Your task to perform on an android device: turn off priority inbox in the gmail app Image 0: 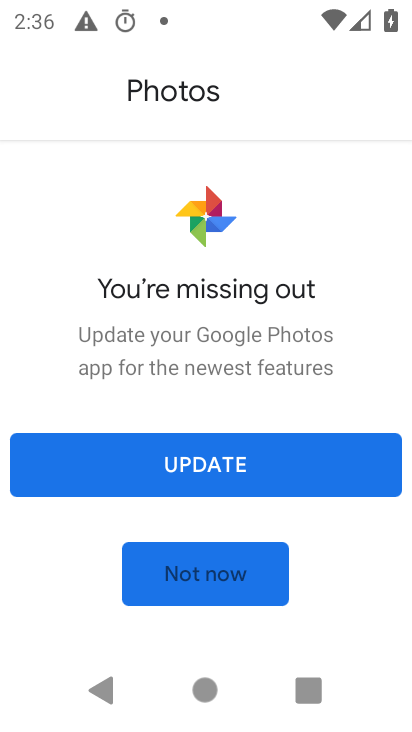
Step 0: click (228, 552)
Your task to perform on an android device: turn off priority inbox in the gmail app Image 1: 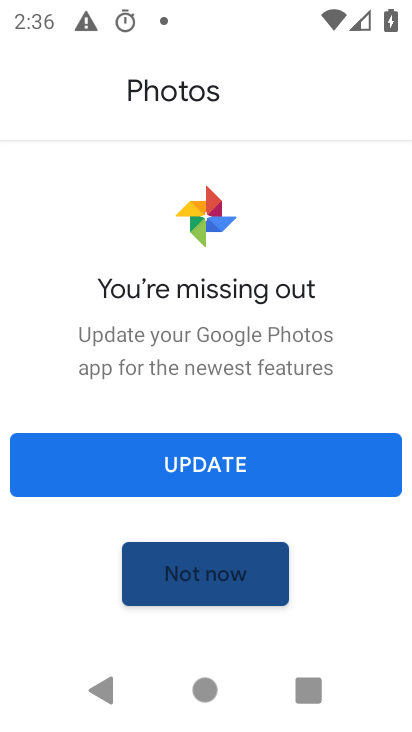
Step 1: click (221, 570)
Your task to perform on an android device: turn off priority inbox in the gmail app Image 2: 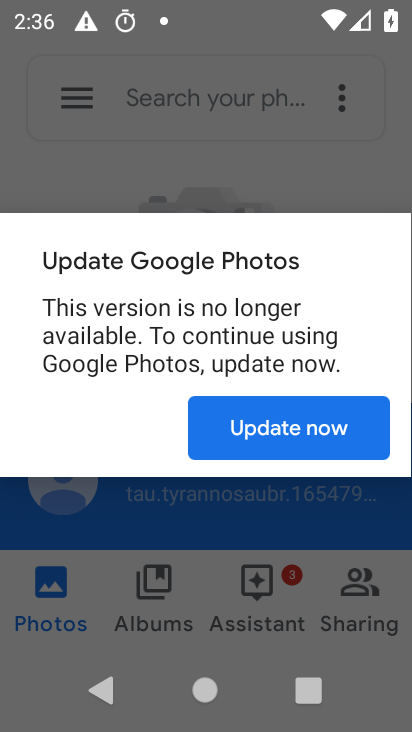
Step 2: press back button
Your task to perform on an android device: turn off priority inbox in the gmail app Image 3: 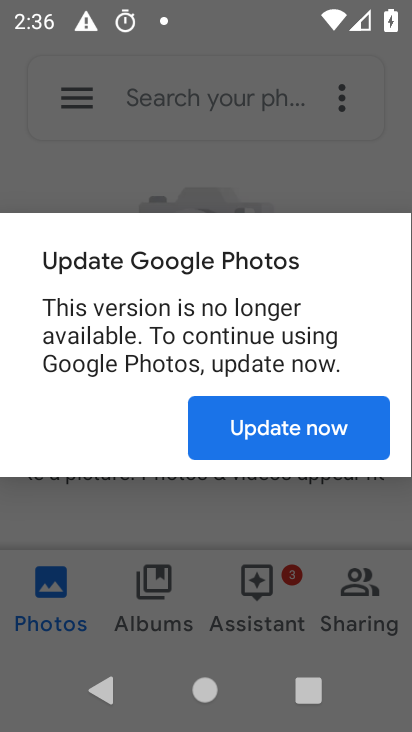
Step 3: click (312, 182)
Your task to perform on an android device: turn off priority inbox in the gmail app Image 4: 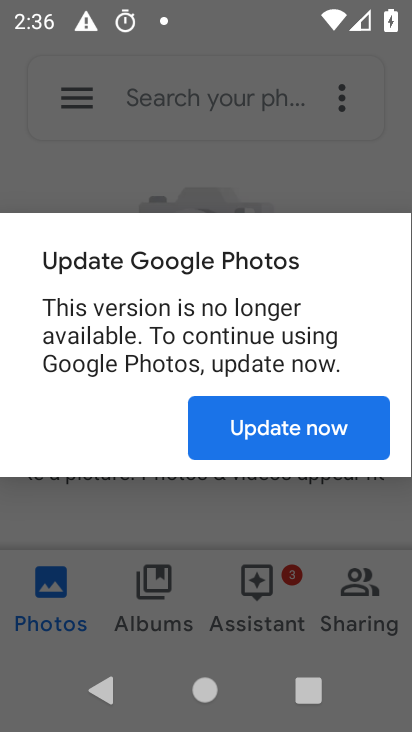
Step 4: press home button
Your task to perform on an android device: turn off priority inbox in the gmail app Image 5: 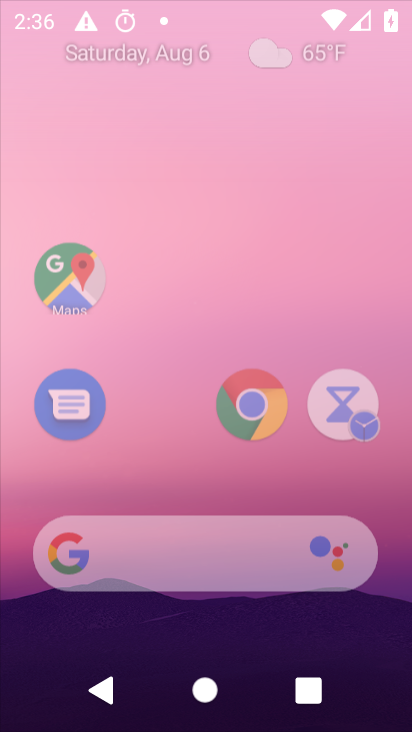
Step 5: press back button
Your task to perform on an android device: turn off priority inbox in the gmail app Image 6: 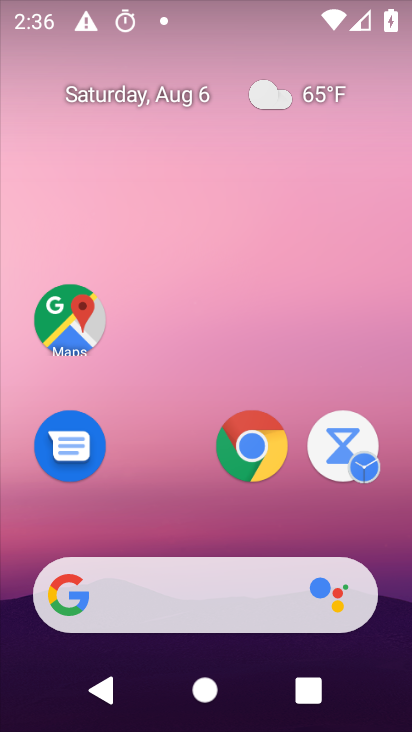
Step 6: drag from (181, 524) to (140, 113)
Your task to perform on an android device: turn off priority inbox in the gmail app Image 7: 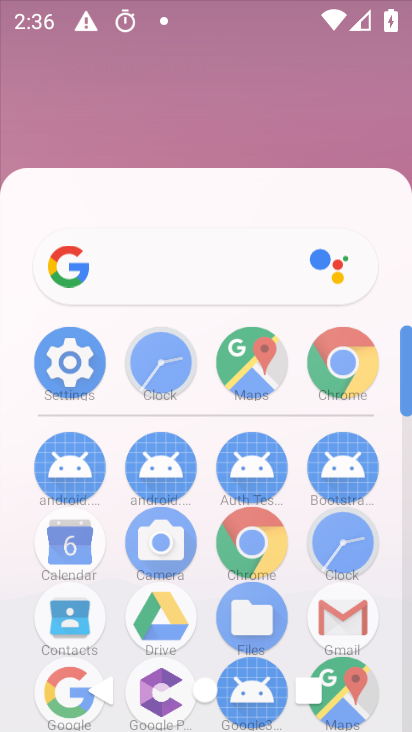
Step 7: drag from (160, 398) to (166, 87)
Your task to perform on an android device: turn off priority inbox in the gmail app Image 8: 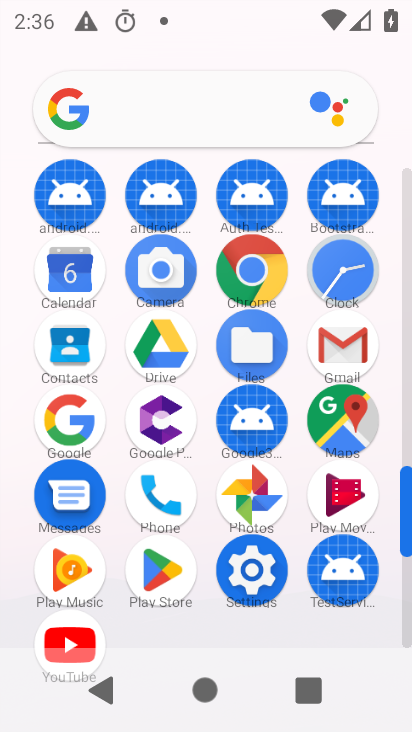
Step 8: click (331, 343)
Your task to perform on an android device: turn off priority inbox in the gmail app Image 9: 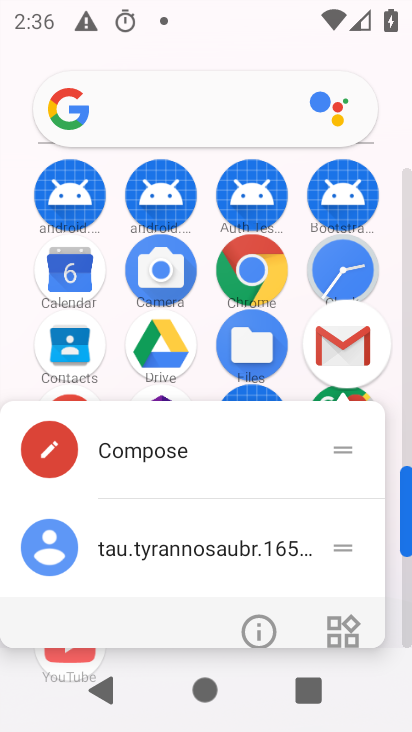
Step 9: click (335, 342)
Your task to perform on an android device: turn off priority inbox in the gmail app Image 10: 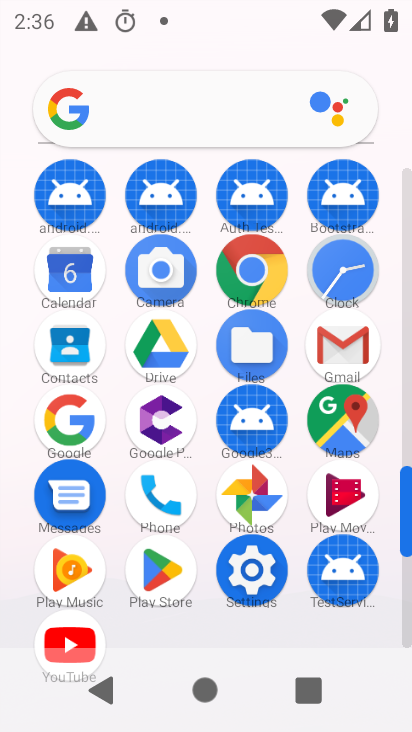
Step 10: click (336, 341)
Your task to perform on an android device: turn off priority inbox in the gmail app Image 11: 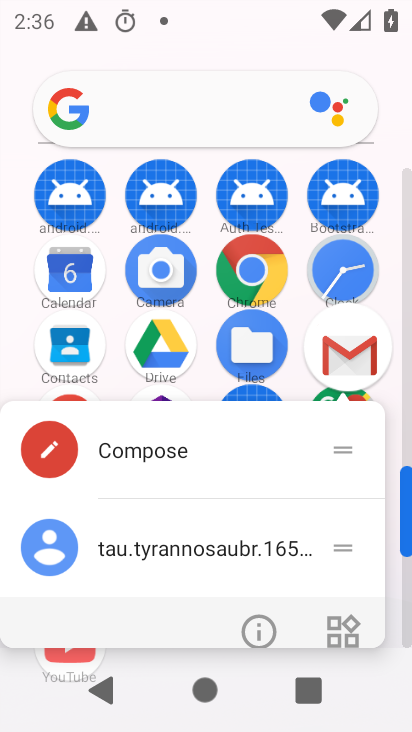
Step 11: click (340, 343)
Your task to perform on an android device: turn off priority inbox in the gmail app Image 12: 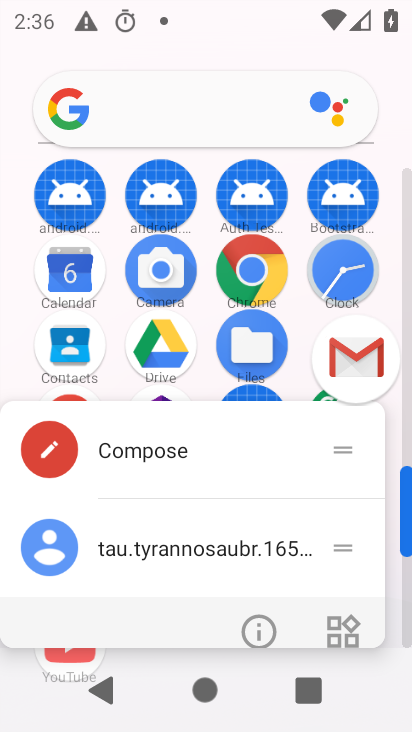
Step 12: click (350, 355)
Your task to perform on an android device: turn off priority inbox in the gmail app Image 13: 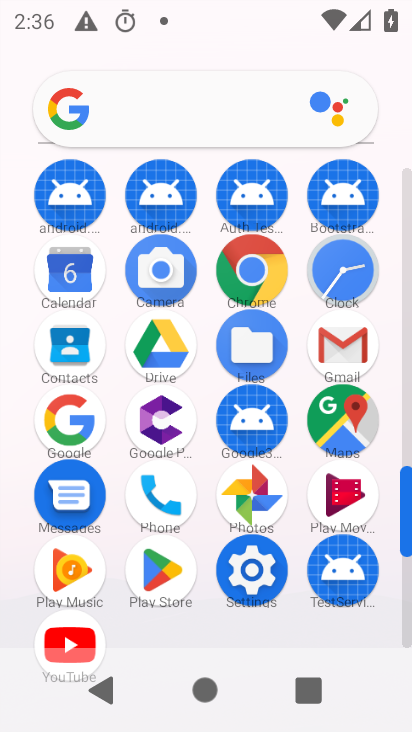
Step 13: click (344, 327)
Your task to perform on an android device: turn off priority inbox in the gmail app Image 14: 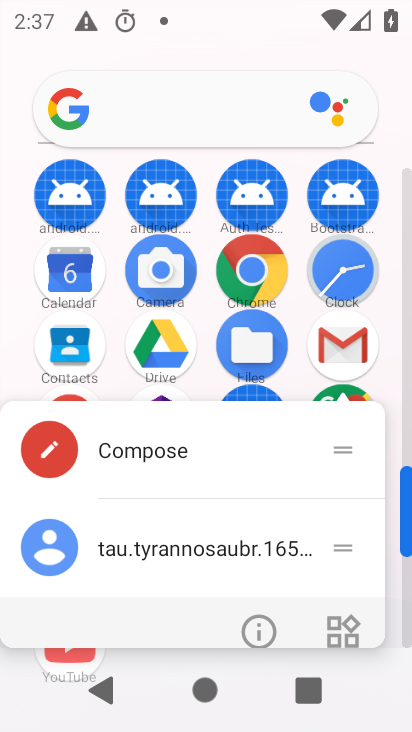
Step 14: click (329, 346)
Your task to perform on an android device: turn off priority inbox in the gmail app Image 15: 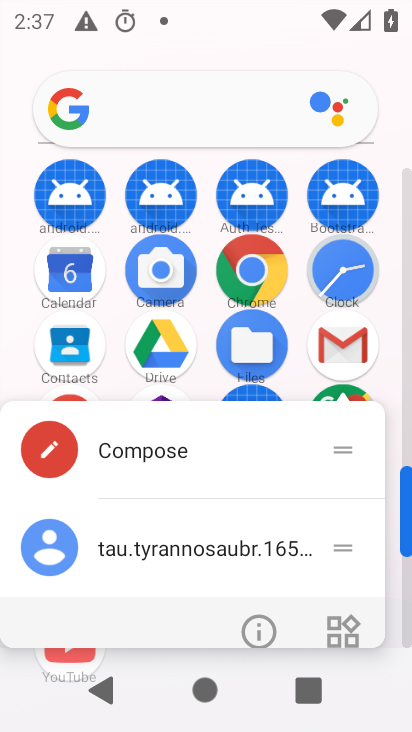
Step 15: click (144, 454)
Your task to perform on an android device: turn off priority inbox in the gmail app Image 16: 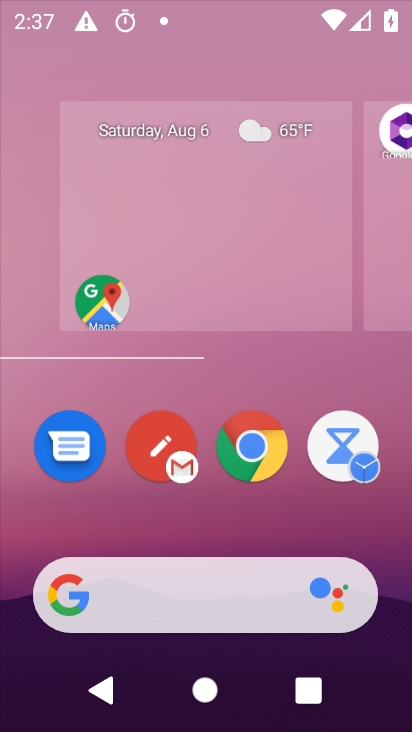
Step 16: drag from (215, 544) to (174, 72)
Your task to perform on an android device: turn off priority inbox in the gmail app Image 17: 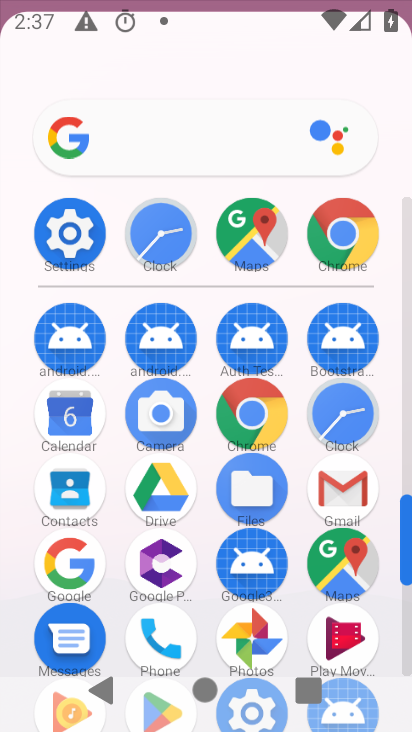
Step 17: click (231, 497)
Your task to perform on an android device: turn off priority inbox in the gmail app Image 18: 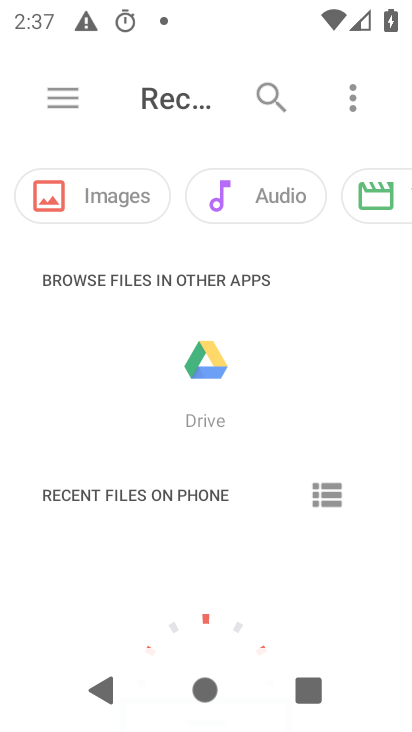
Step 18: click (354, 438)
Your task to perform on an android device: turn off priority inbox in the gmail app Image 19: 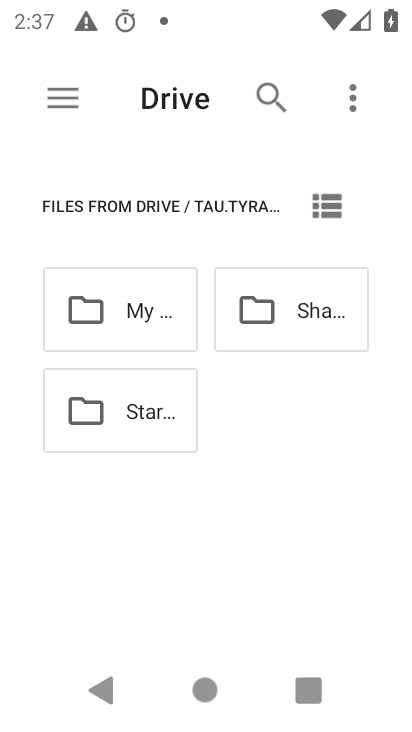
Step 19: press back button
Your task to perform on an android device: turn off priority inbox in the gmail app Image 20: 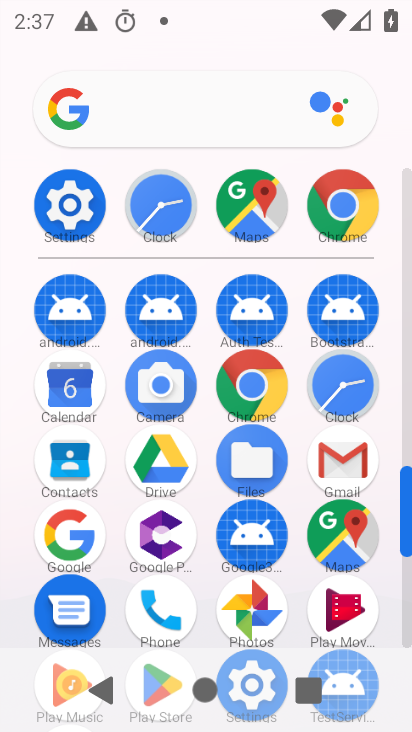
Step 20: click (337, 449)
Your task to perform on an android device: turn off priority inbox in the gmail app Image 21: 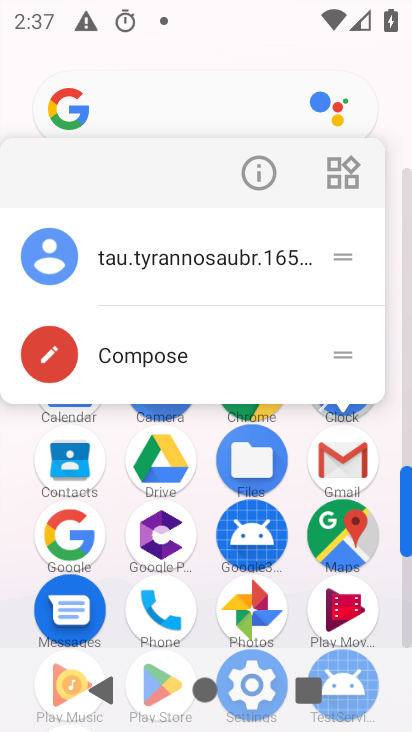
Step 21: click (134, 345)
Your task to perform on an android device: turn off priority inbox in the gmail app Image 22: 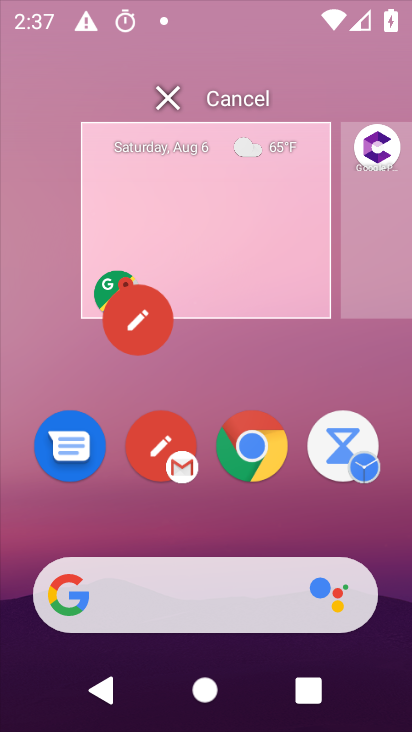
Step 22: click (140, 349)
Your task to perform on an android device: turn off priority inbox in the gmail app Image 23: 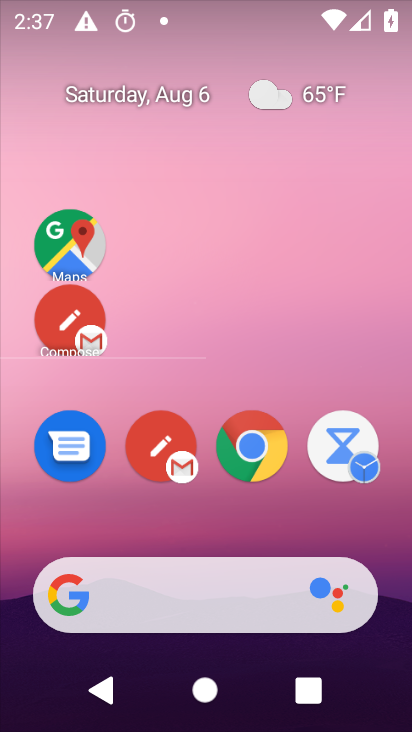
Step 23: drag from (232, 248) to (214, 120)
Your task to perform on an android device: turn off priority inbox in the gmail app Image 24: 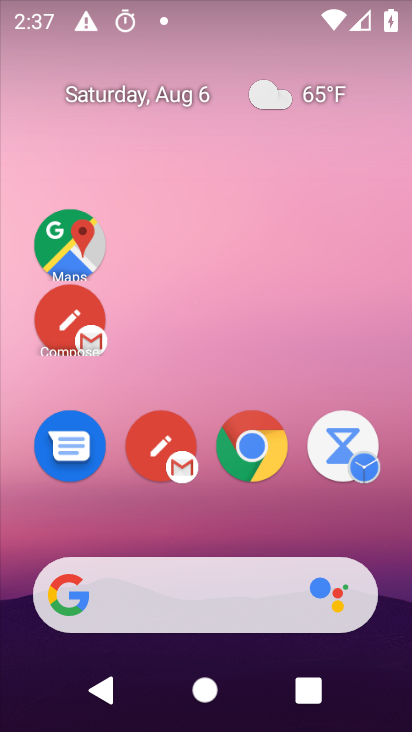
Step 24: drag from (234, 436) to (209, 150)
Your task to perform on an android device: turn off priority inbox in the gmail app Image 25: 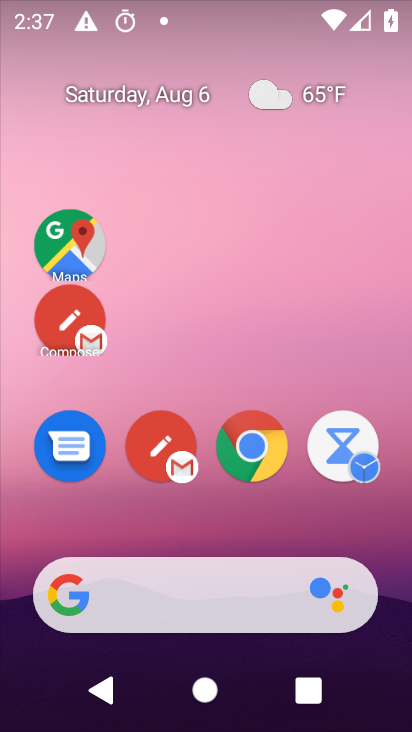
Step 25: drag from (227, 414) to (189, 58)
Your task to perform on an android device: turn off priority inbox in the gmail app Image 26: 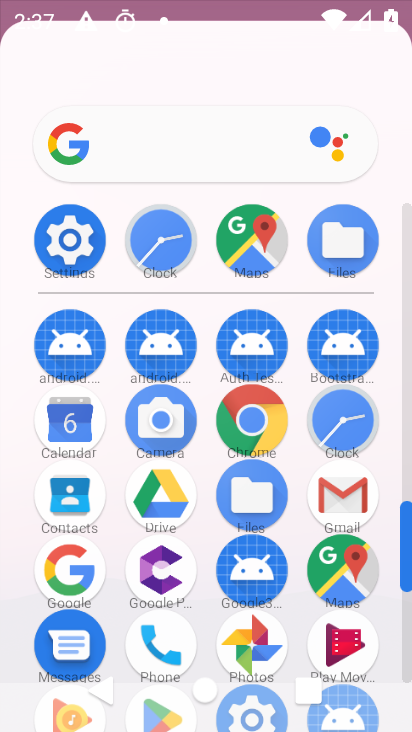
Step 26: drag from (205, 399) to (182, 132)
Your task to perform on an android device: turn off priority inbox in the gmail app Image 27: 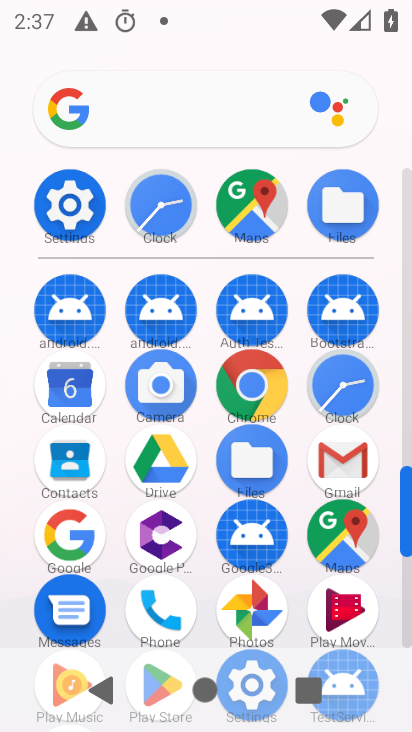
Step 27: click (343, 465)
Your task to perform on an android device: turn off priority inbox in the gmail app Image 28: 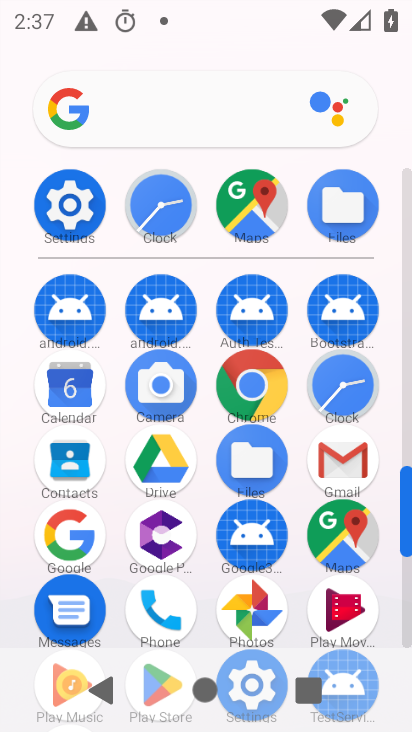
Step 28: click (343, 464)
Your task to perform on an android device: turn off priority inbox in the gmail app Image 29: 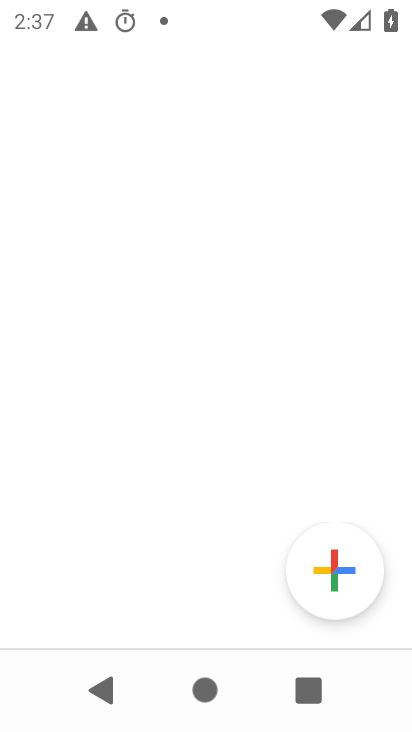
Step 29: click (343, 464)
Your task to perform on an android device: turn off priority inbox in the gmail app Image 30: 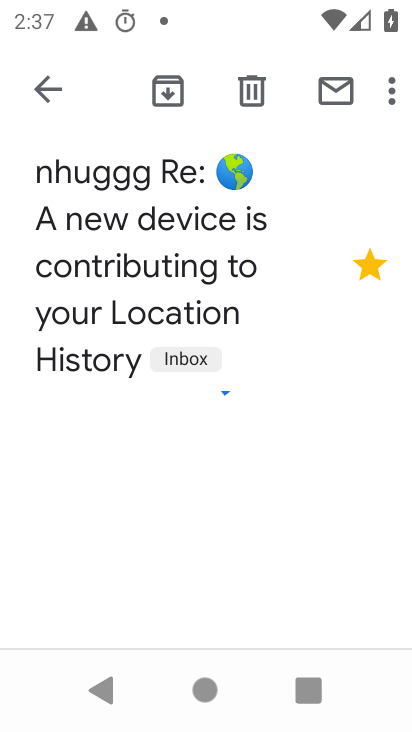
Step 30: click (43, 87)
Your task to perform on an android device: turn off priority inbox in the gmail app Image 31: 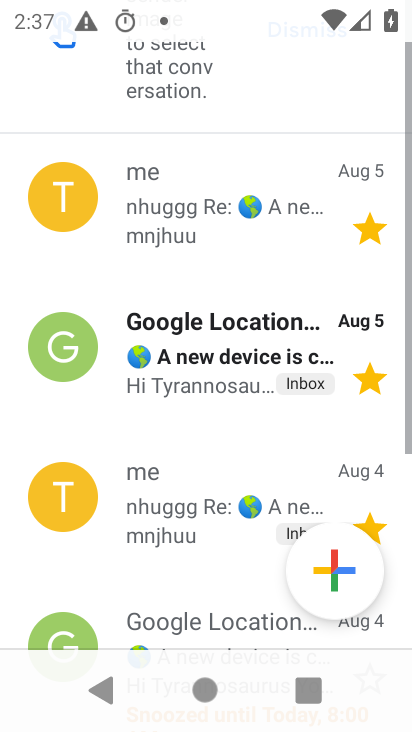
Step 31: drag from (77, 92) to (94, 434)
Your task to perform on an android device: turn off priority inbox in the gmail app Image 32: 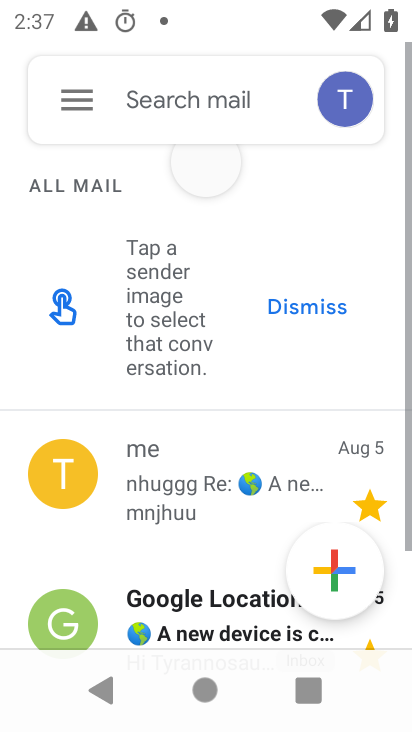
Step 32: drag from (112, 192) to (190, 513)
Your task to perform on an android device: turn off priority inbox in the gmail app Image 33: 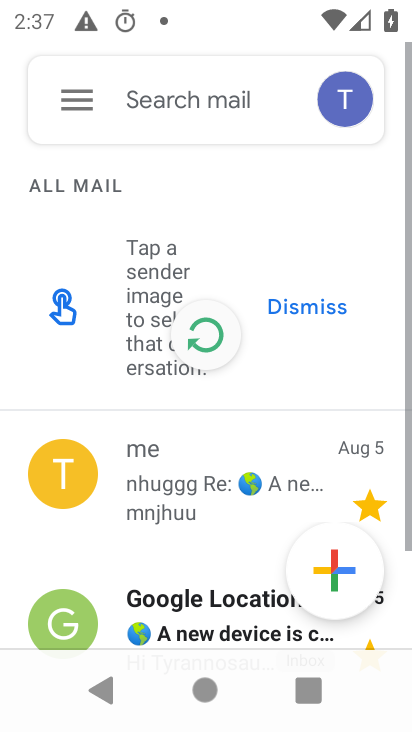
Step 33: drag from (143, 217) to (165, 536)
Your task to perform on an android device: turn off priority inbox in the gmail app Image 34: 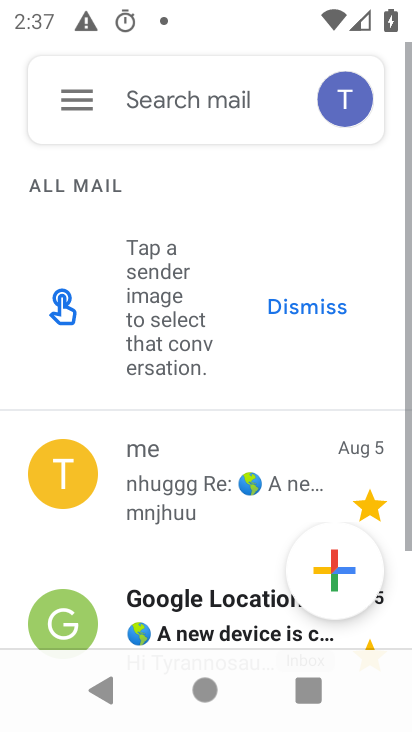
Step 34: drag from (78, 102) to (191, 564)
Your task to perform on an android device: turn off priority inbox in the gmail app Image 35: 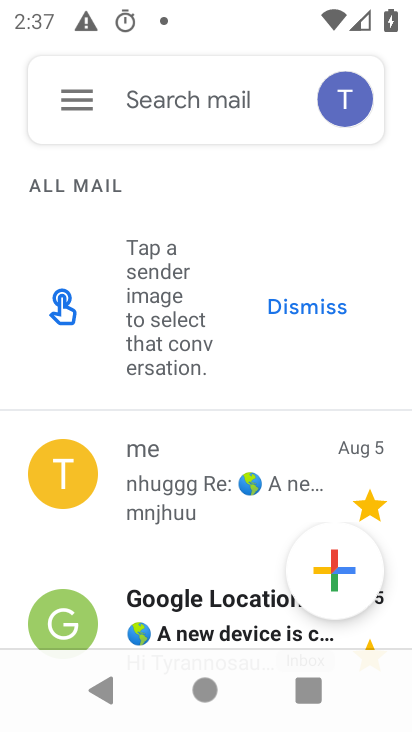
Step 35: drag from (73, 107) to (82, 520)
Your task to perform on an android device: turn off priority inbox in the gmail app Image 36: 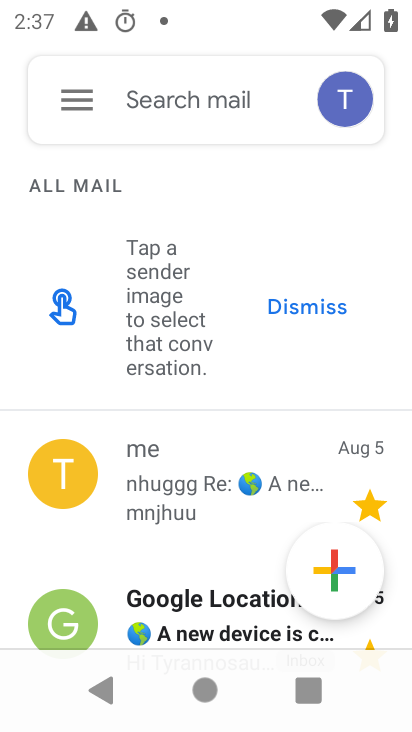
Step 36: click (85, 107)
Your task to perform on an android device: turn off priority inbox in the gmail app Image 37: 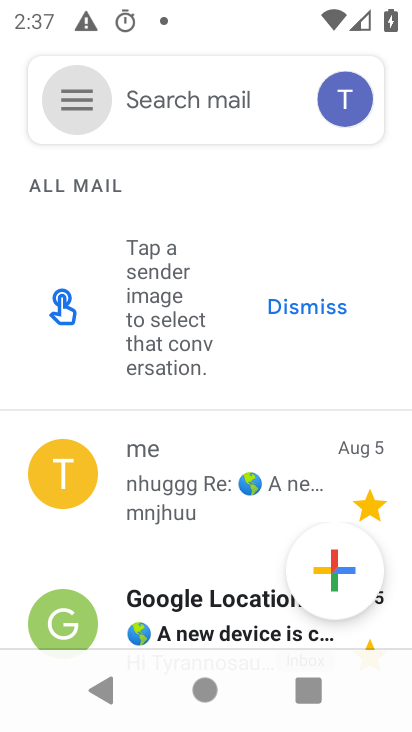
Step 37: click (85, 107)
Your task to perform on an android device: turn off priority inbox in the gmail app Image 38: 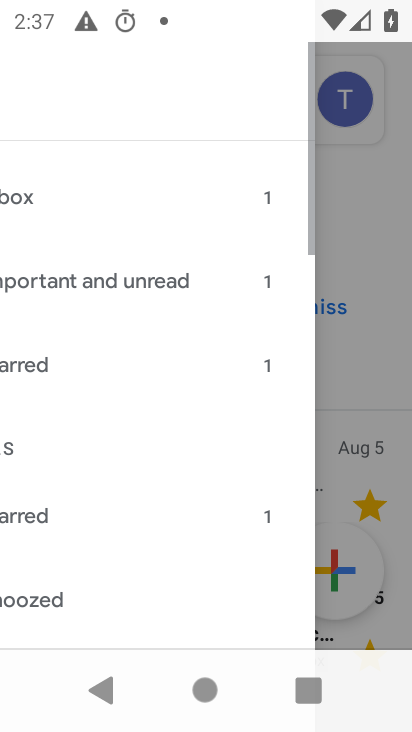
Step 38: drag from (85, 107) to (354, 275)
Your task to perform on an android device: turn off priority inbox in the gmail app Image 39: 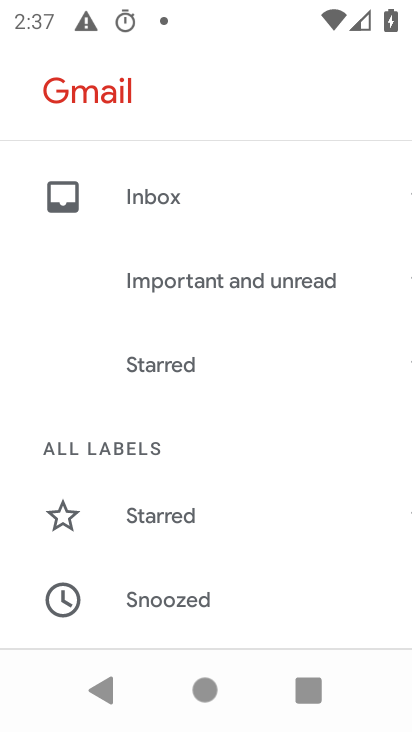
Step 39: drag from (290, 478) to (278, 227)
Your task to perform on an android device: turn off priority inbox in the gmail app Image 40: 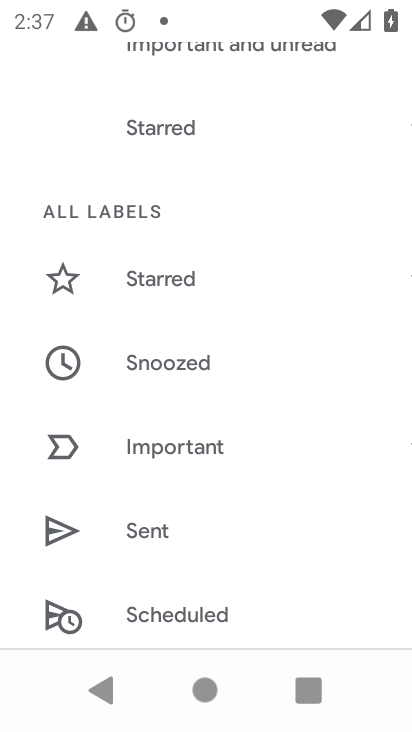
Step 40: drag from (235, 393) to (248, 167)
Your task to perform on an android device: turn off priority inbox in the gmail app Image 41: 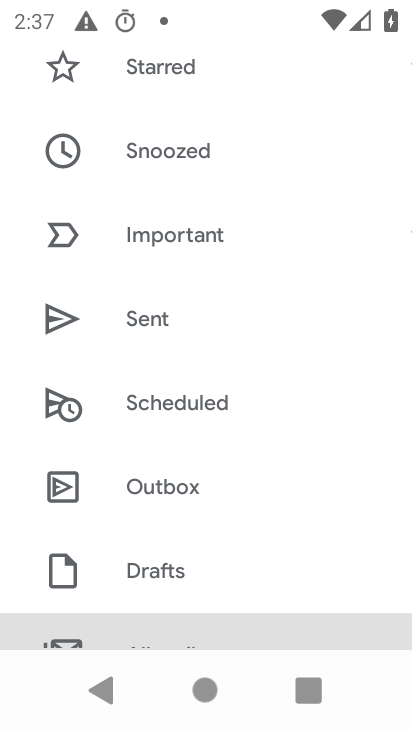
Step 41: drag from (258, 466) to (219, 220)
Your task to perform on an android device: turn off priority inbox in the gmail app Image 42: 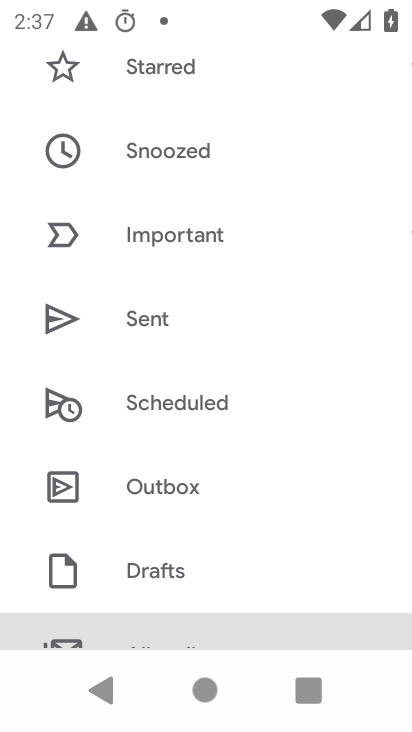
Step 42: drag from (215, 416) to (193, 119)
Your task to perform on an android device: turn off priority inbox in the gmail app Image 43: 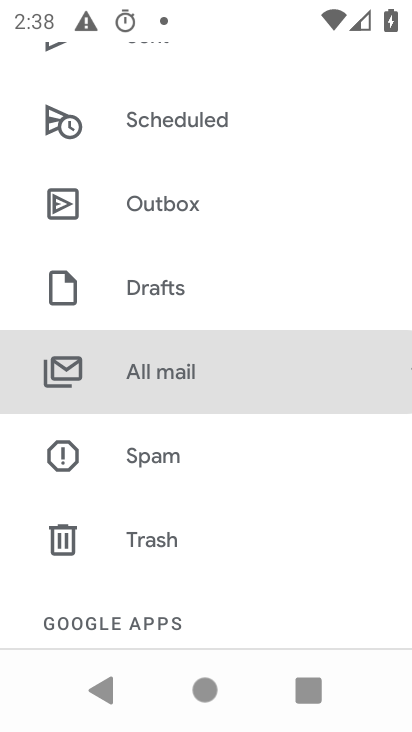
Step 43: drag from (212, 528) to (154, 140)
Your task to perform on an android device: turn off priority inbox in the gmail app Image 44: 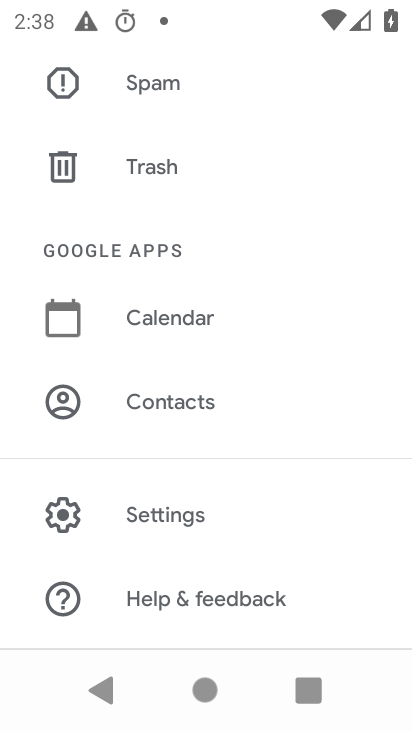
Step 44: drag from (226, 493) to (215, 184)
Your task to perform on an android device: turn off priority inbox in the gmail app Image 45: 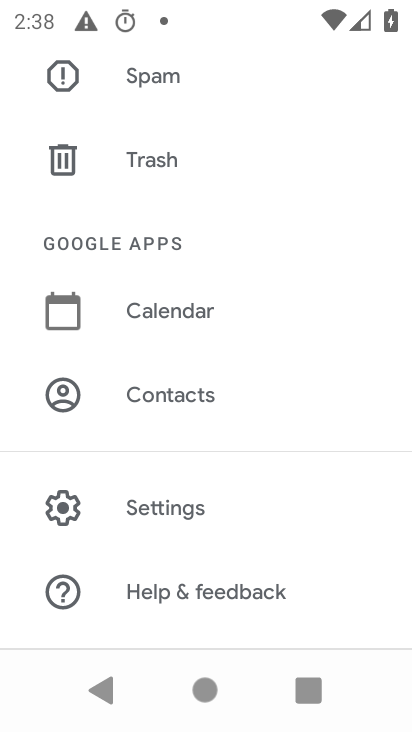
Step 45: click (164, 498)
Your task to perform on an android device: turn off priority inbox in the gmail app Image 46: 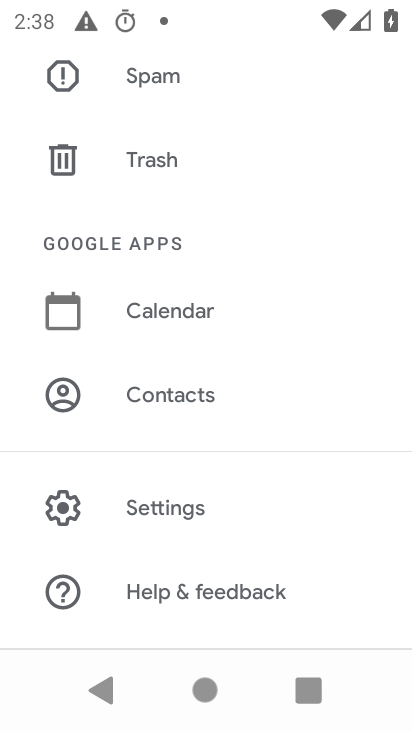
Step 46: click (164, 498)
Your task to perform on an android device: turn off priority inbox in the gmail app Image 47: 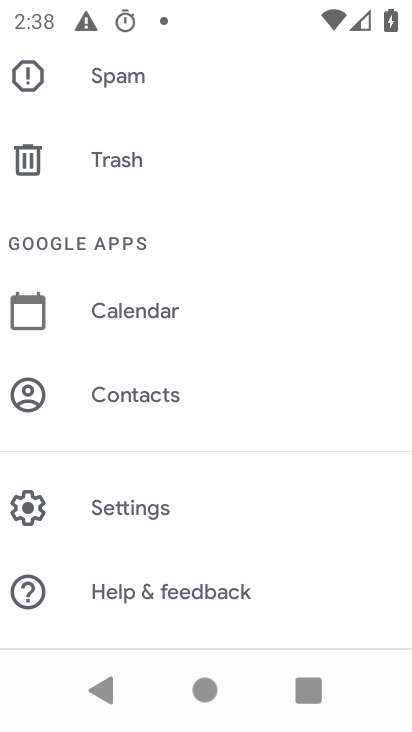
Step 47: click (164, 498)
Your task to perform on an android device: turn off priority inbox in the gmail app Image 48: 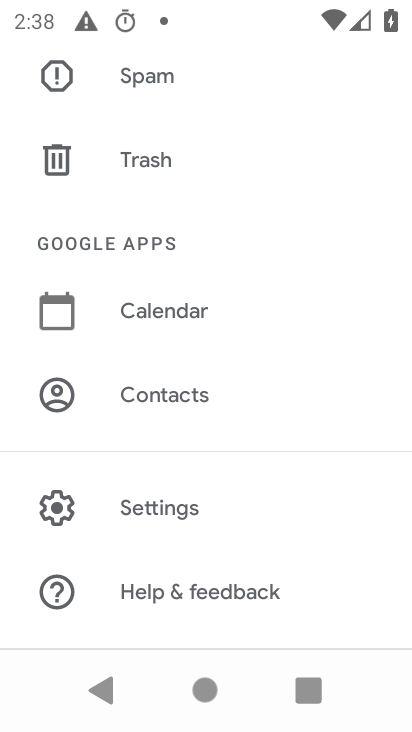
Step 48: click (164, 498)
Your task to perform on an android device: turn off priority inbox in the gmail app Image 49: 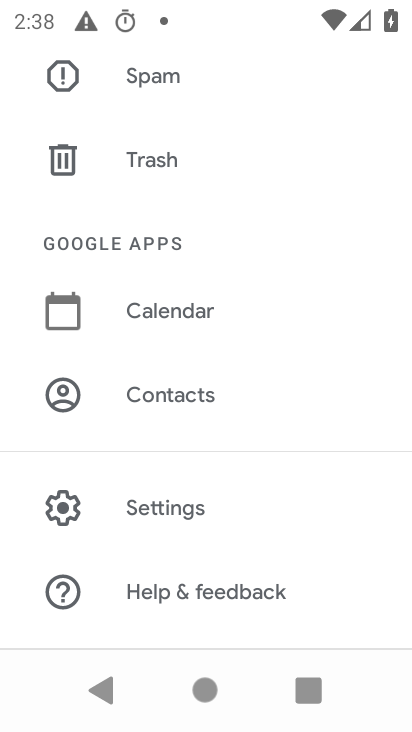
Step 49: click (162, 514)
Your task to perform on an android device: turn off priority inbox in the gmail app Image 50: 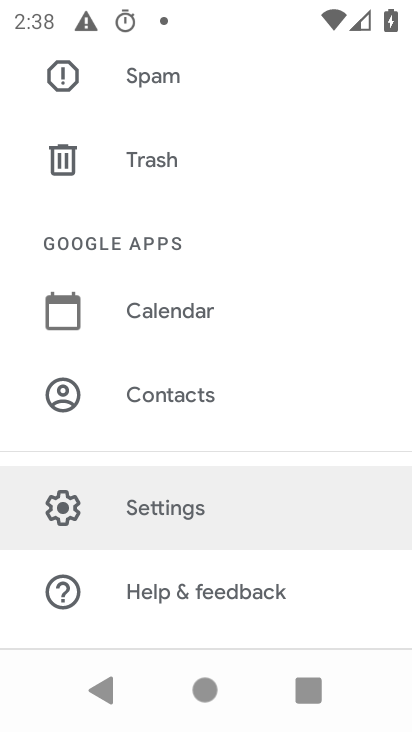
Step 50: click (162, 514)
Your task to perform on an android device: turn off priority inbox in the gmail app Image 51: 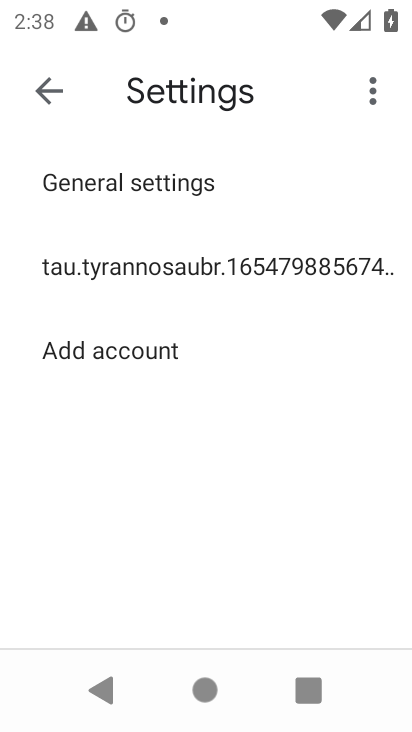
Step 51: click (122, 253)
Your task to perform on an android device: turn off priority inbox in the gmail app Image 52: 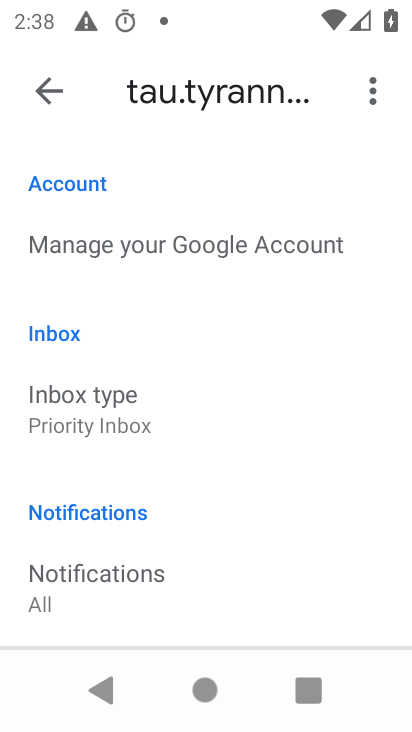
Step 52: click (94, 424)
Your task to perform on an android device: turn off priority inbox in the gmail app Image 53: 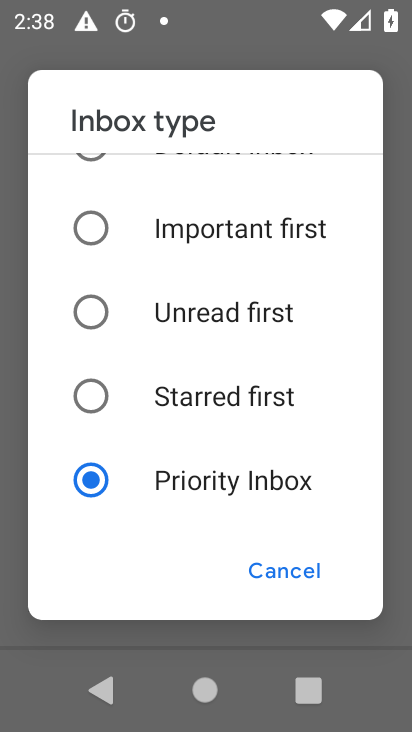
Step 53: click (91, 226)
Your task to perform on an android device: turn off priority inbox in the gmail app Image 54: 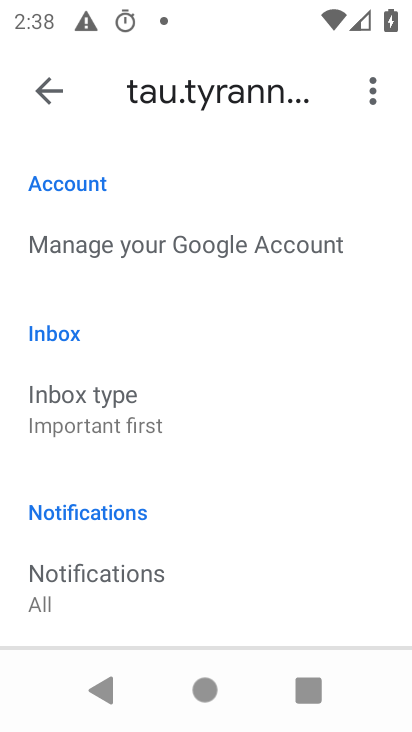
Step 54: task complete